Your task to perform on an android device: open app "Move to iOS" (install if not already installed) and enter user name: "Decca@icloud.com" and password: "reabbreviate" Image 0: 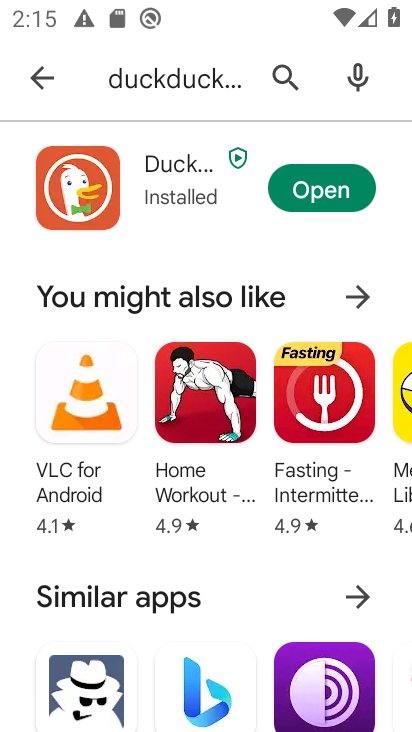
Step 0: click (287, 66)
Your task to perform on an android device: open app "Move to iOS" (install if not already installed) and enter user name: "Decca@icloud.com" and password: "reabbreviate" Image 1: 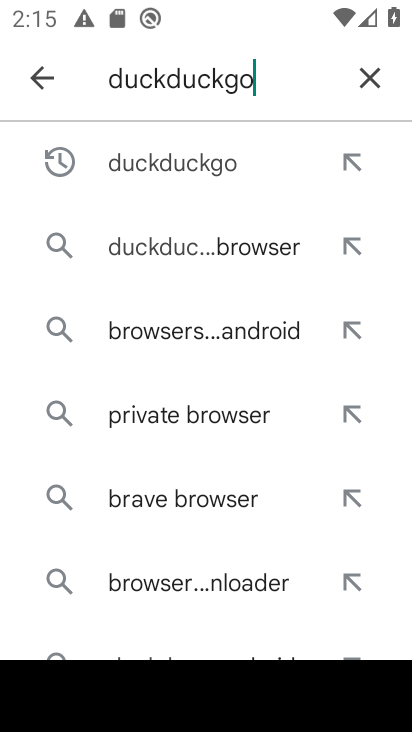
Step 1: click (371, 71)
Your task to perform on an android device: open app "Move to iOS" (install if not already installed) and enter user name: "Decca@icloud.com" and password: "reabbreviate" Image 2: 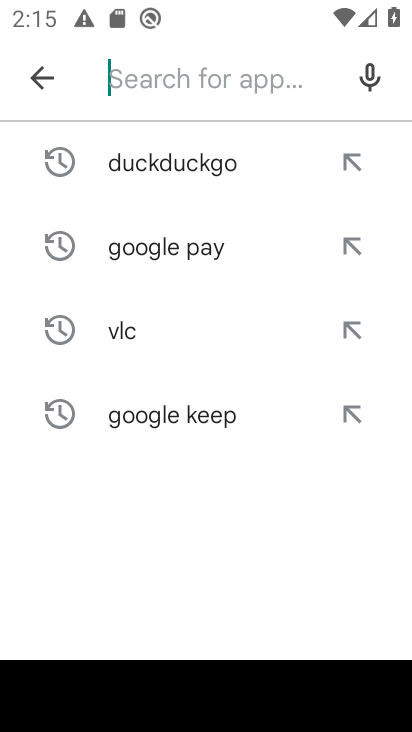
Step 2: type "ios"
Your task to perform on an android device: open app "Move to iOS" (install if not already installed) and enter user name: "Decca@icloud.com" and password: "reabbreviate" Image 3: 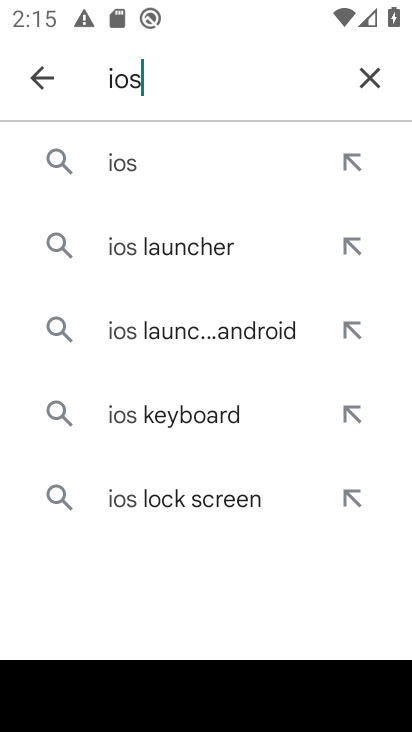
Step 3: click (155, 155)
Your task to perform on an android device: open app "Move to iOS" (install if not already installed) and enter user name: "Decca@icloud.com" and password: "reabbreviate" Image 4: 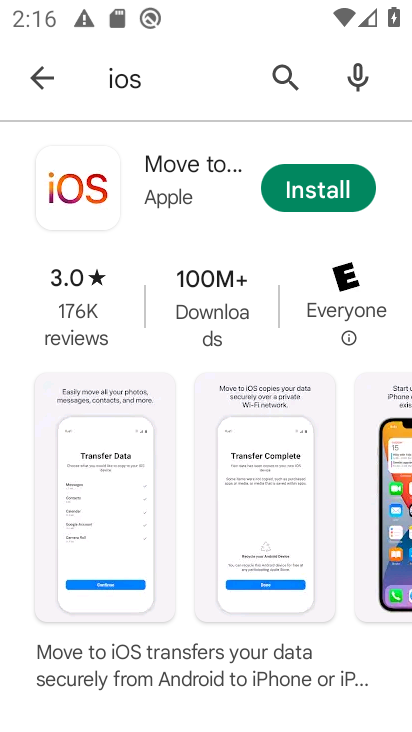
Step 4: click (331, 196)
Your task to perform on an android device: open app "Move to iOS" (install if not already installed) and enter user name: "Decca@icloud.com" and password: "reabbreviate" Image 5: 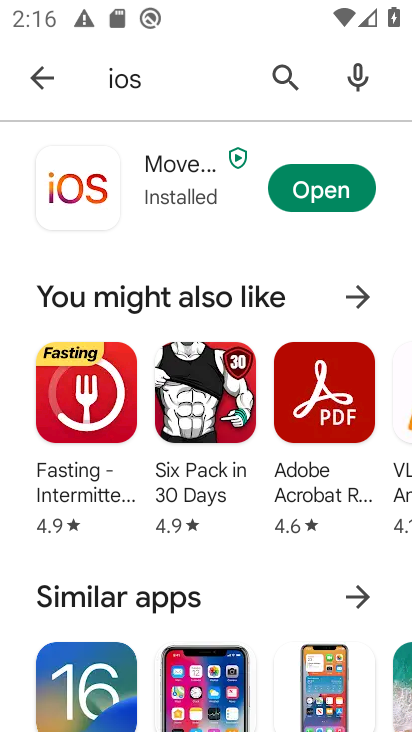
Step 5: click (299, 199)
Your task to perform on an android device: open app "Move to iOS" (install if not already installed) and enter user name: "Decca@icloud.com" and password: "reabbreviate" Image 6: 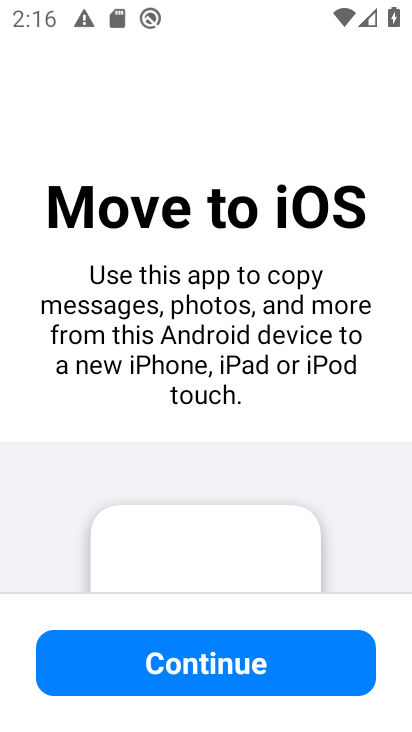
Step 6: click (247, 651)
Your task to perform on an android device: open app "Move to iOS" (install if not already installed) and enter user name: "Decca@icloud.com" and password: "reabbreviate" Image 7: 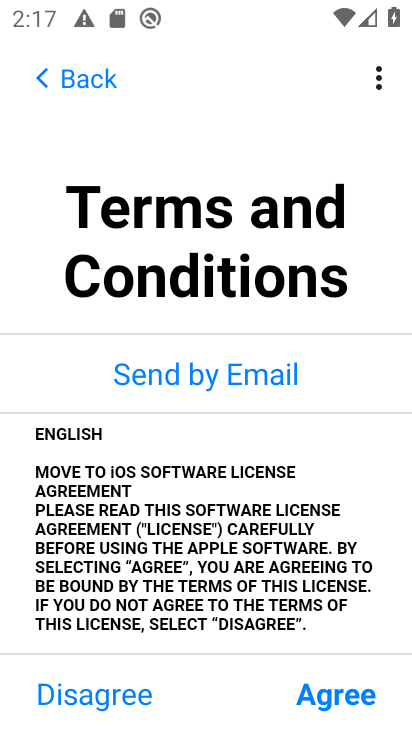
Step 7: click (347, 699)
Your task to perform on an android device: open app "Move to iOS" (install if not already installed) and enter user name: "Decca@icloud.com" and password: "reabbreviate" Image 8: 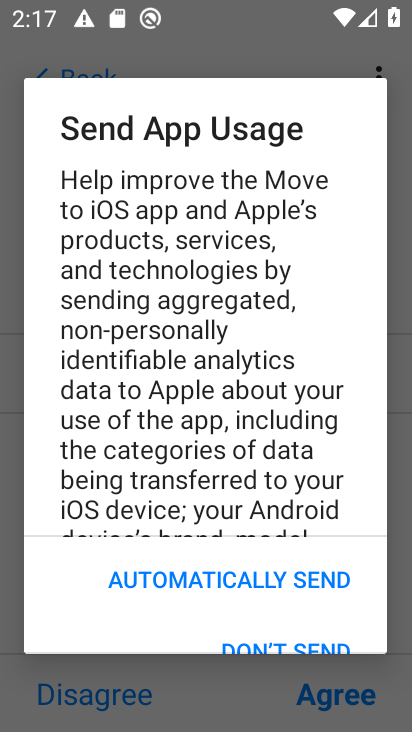
Step 8: drag from (251, 581) to (256, 202)
Your task to perform on an android device: open app "Move to iOS" (install if not already installed) and enter user name: "Decca@icloud.com" and password: "reabbreviate" Image 9: 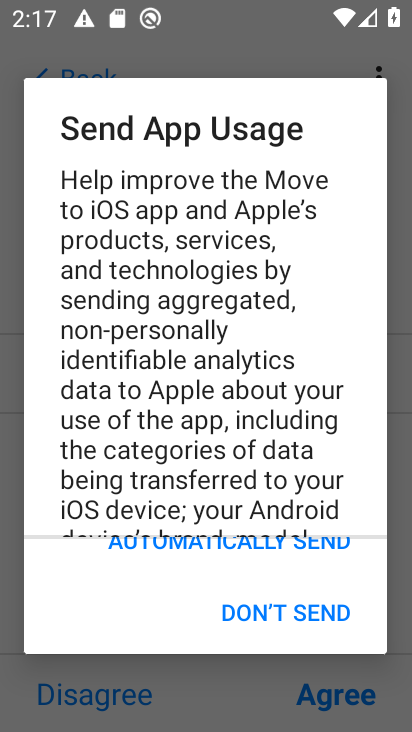
Step 9: click (271, 616)
Your task to perform on an android device: open app "Move to iOS" (install if not already installed) and enter user name: "Decca@icloud.com" and password: "reabbreviate" Image 10: 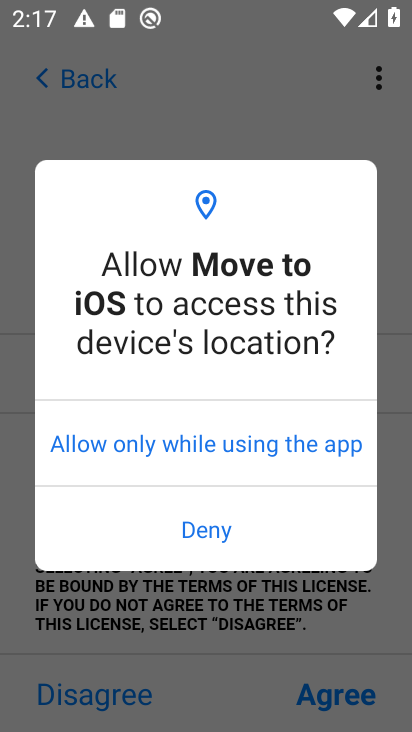
Step 10: click (193, 521)
Your task to perform on an android device: open app "Move to iOS" (install if not already installed) and enter user name: "Decca@icloud.com" and password: "reabbreviate" Image 11: 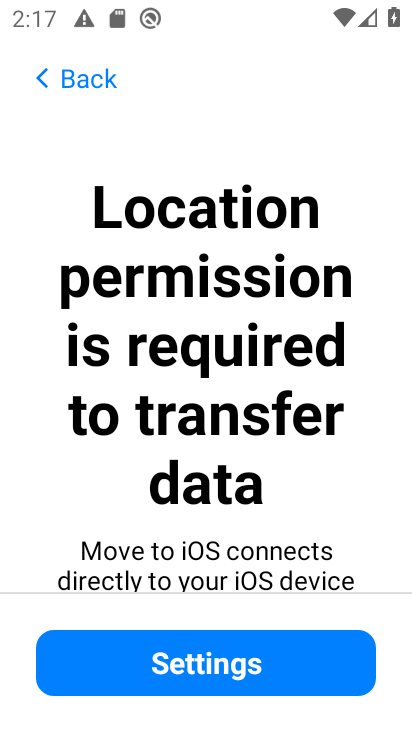
Step 11: drag from (220, 512) to (322, 129)
Your task to perform on an android device: open app "Move to iOS" (install if not already installed) and enter user name: "Decca@icloud.com" and password: "reabbreviate" Image 12: 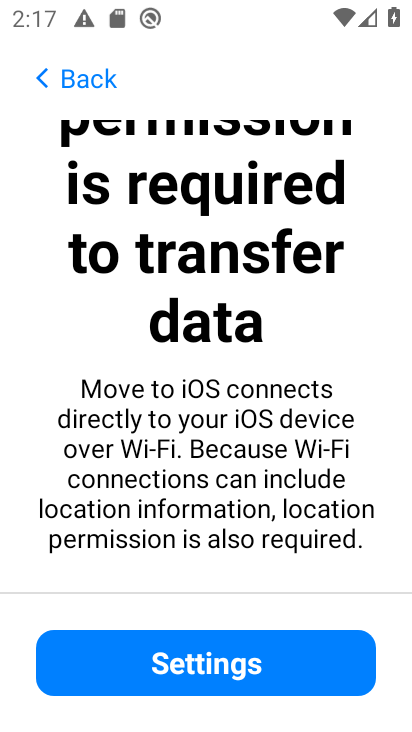
Step 12: click (159, 667)
Your task to perform on an android device: open app "Move to iOS" (install if not already installed) and enter user name: "Decca@icloud.com" and password: "reabbreviate" Image 13: 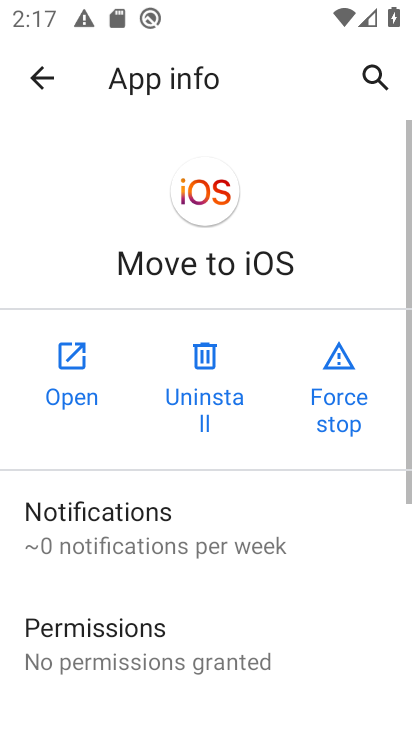
Step 13: task complete